Your task to perform on an android device: Go to notification settings Image 0: 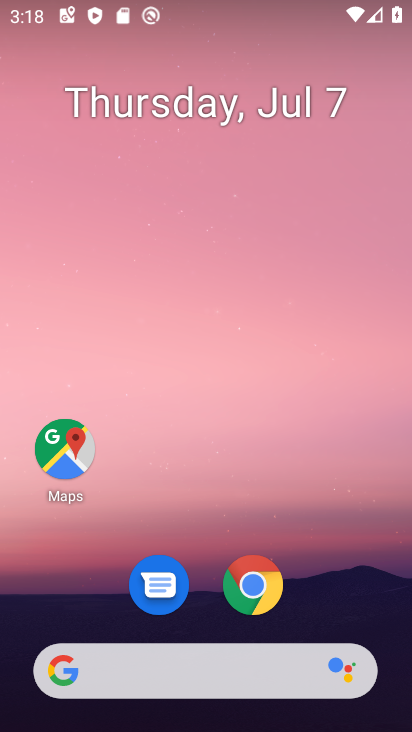
Step 0: drag from (242, 494) to (239, 0)
Your task to perform on an android device: Go to notification settings Image 1: 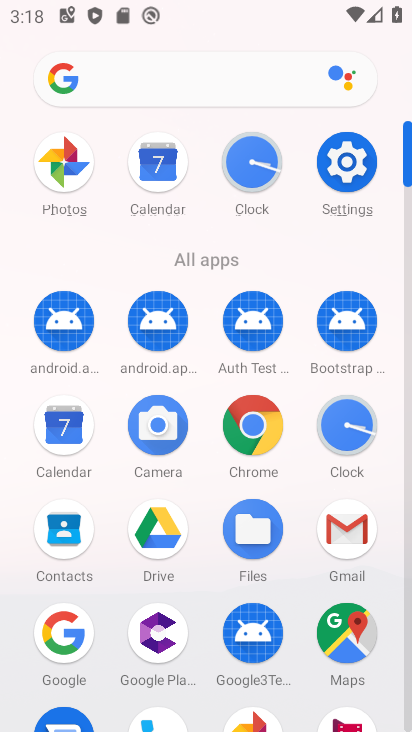
Step 1: click (344, 171)
Your task to perform on an android device: Go to notification settings Image 2: 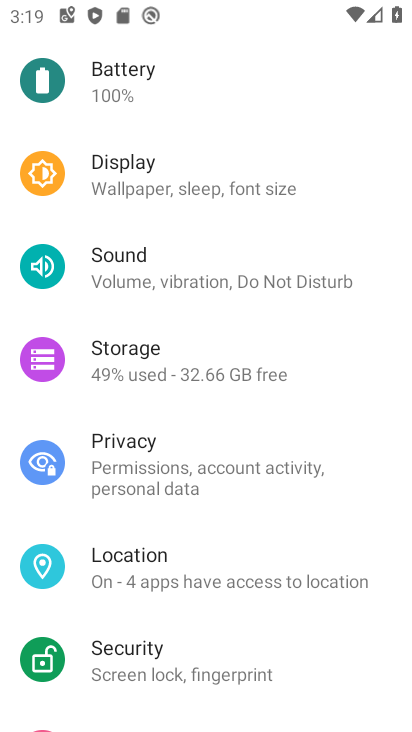
Step 2: drag from (193, 119) to (176, 629)
Your task to perform on an android device: Go to notification settings Image 3: 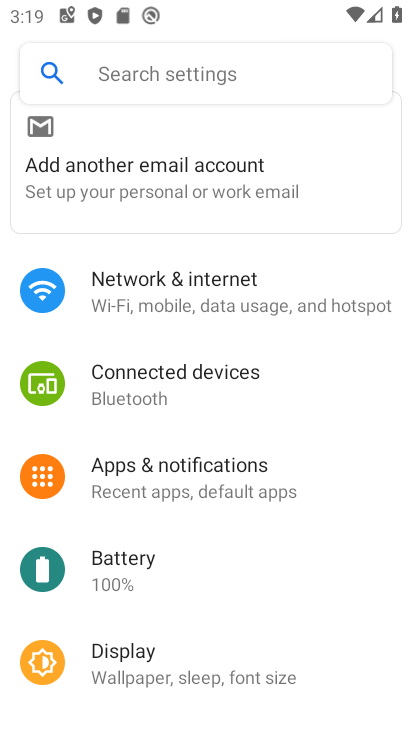
Step 3: click (191, 483)
Your task to perform on an android device: Go to notification settings Image 4: 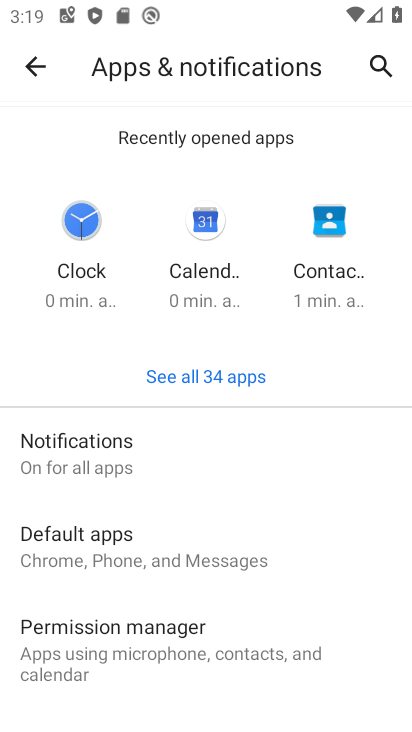
Step 4: click (122, 452)
Your task to perform on an android device: Go to notification settings Image 5: 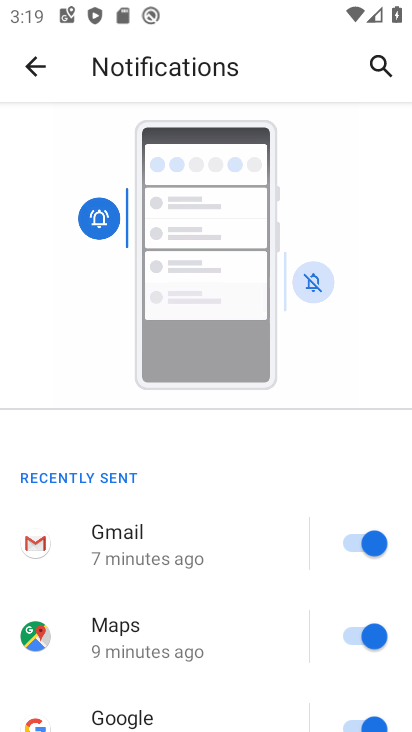
Step 5: task complete